Your task to perform on an android device: What's the weather going to be this weekend? Image 0: 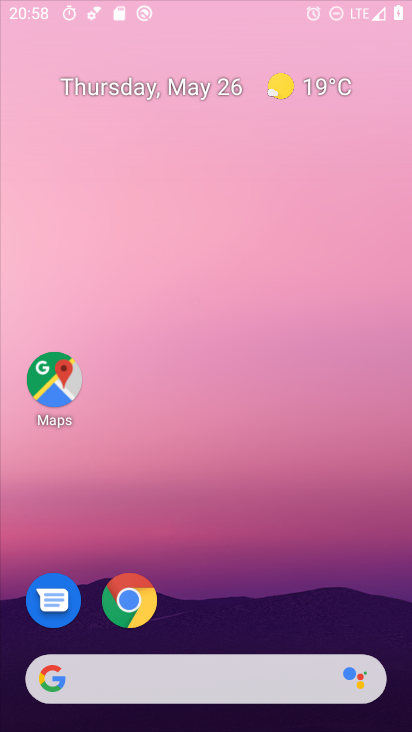
Step 0: press home button
Your task to perform on an android device: What's the weather going to be this weekend? Image 1: 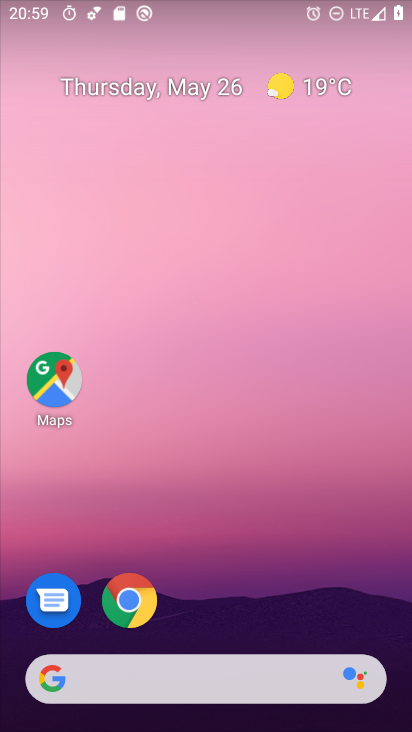
Step 1: click (47, 695)
Your task to perform on an android device: What's the weather going to be this weekend? Image 2: 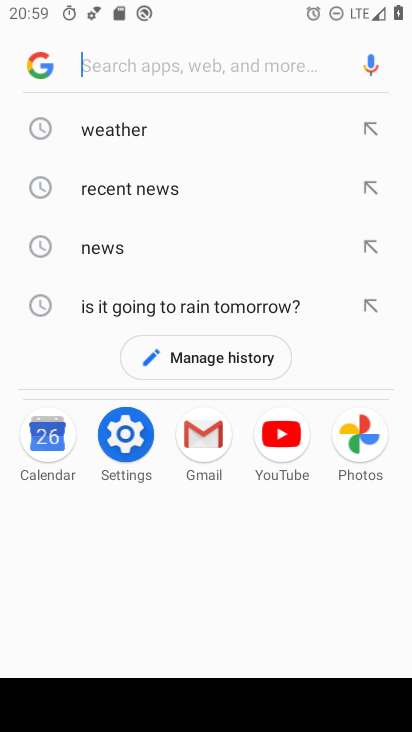
Step 2: type "weather going to be this wee"
Your task to perform on an android device: What's the weather going to be this weekend? Image 3: 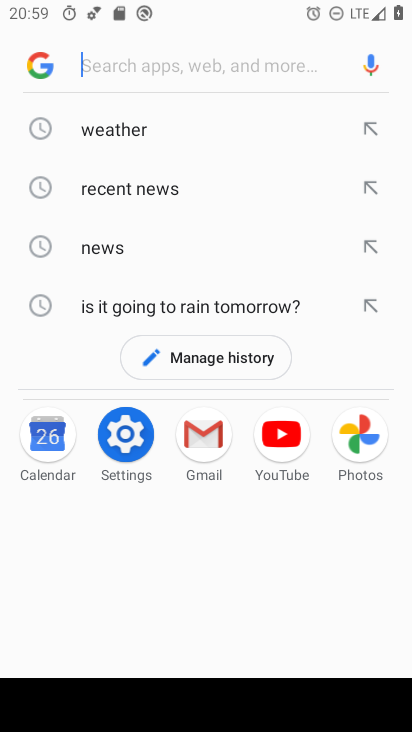
Step 3: click (179, 69)
Your task to perform on an android device: What's the weather going to be this weekend? Image 4: 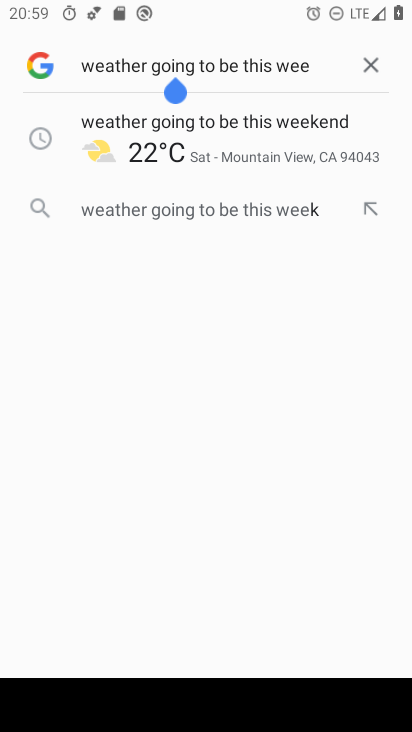
Step 4: click (244, 121)
Your task to perform on an android device: What's the weather going to be this weekend? Image 5: 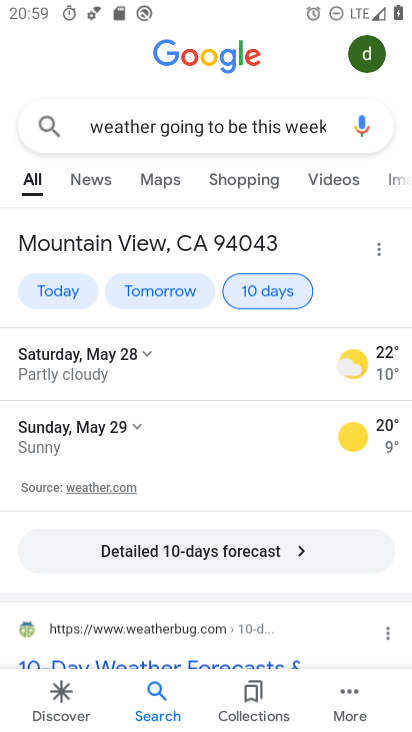
Step 5: press home button
Your task to perform on an android device: What's the weather going to be this weekend? Image 6: 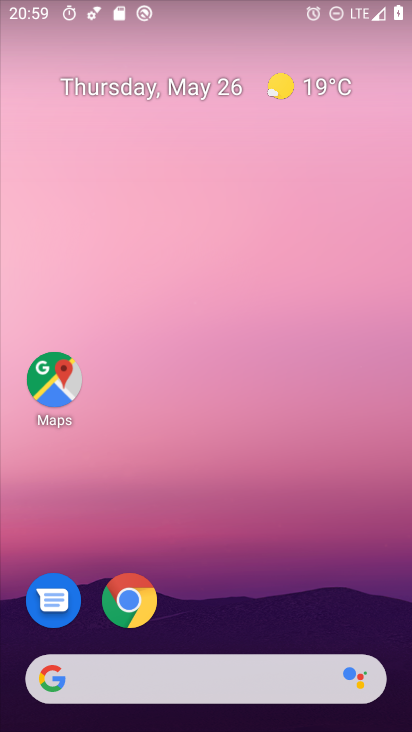
Step 6: press home button
Your task to perform on an android device: What's the weather going to be this weekend? Image 7: 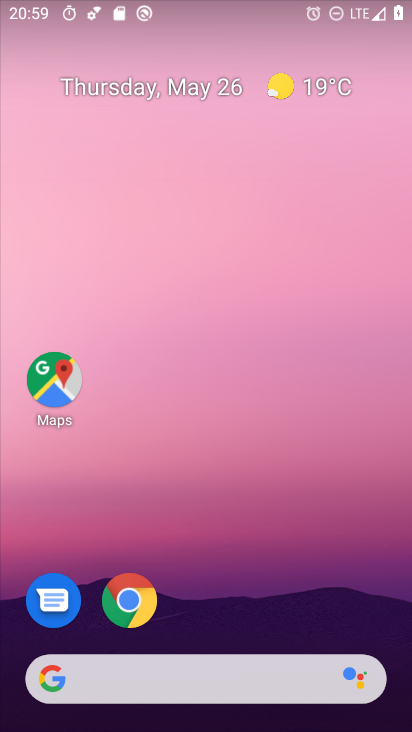
Step 7: click (57, 685)
Your task to perform on an android device: What's the weather going to be this weekend? Image 8: 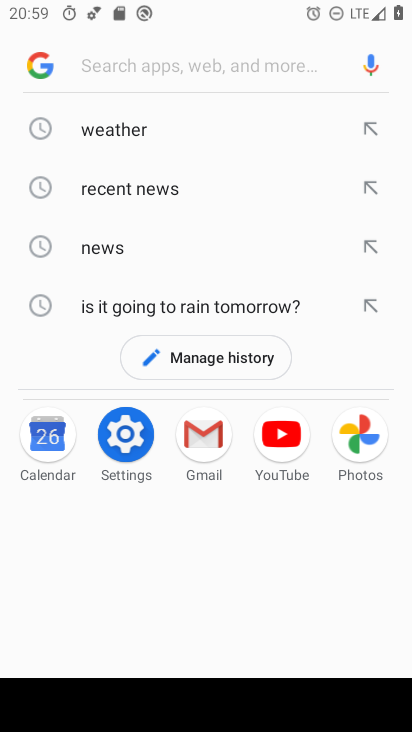
Step 8: type "weather going to be this weekend?"
Your task to perform on an android device: What's the weather going to be this weekend? Image 9: 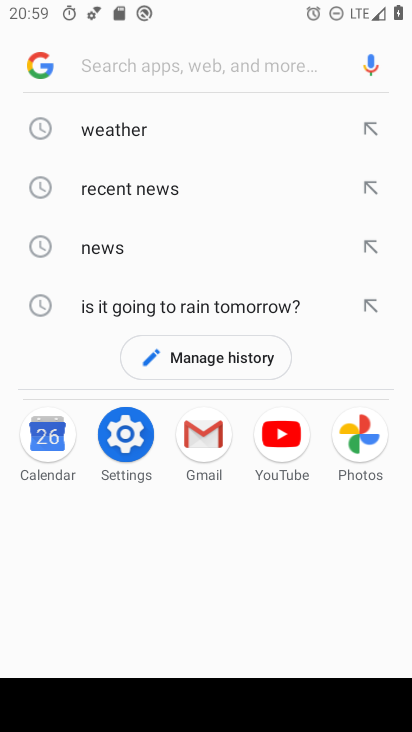
Step 9: click (192, 78)
Your task to perform on an android device: What's the weather going to be this weekend? Image 10: 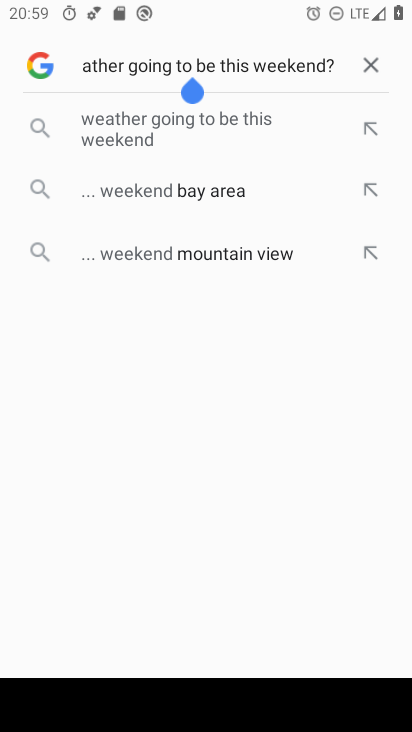
Step 10: click (191, 127)
Your task to perform on an android device: What's the weather going to be this weekend? Image 11: 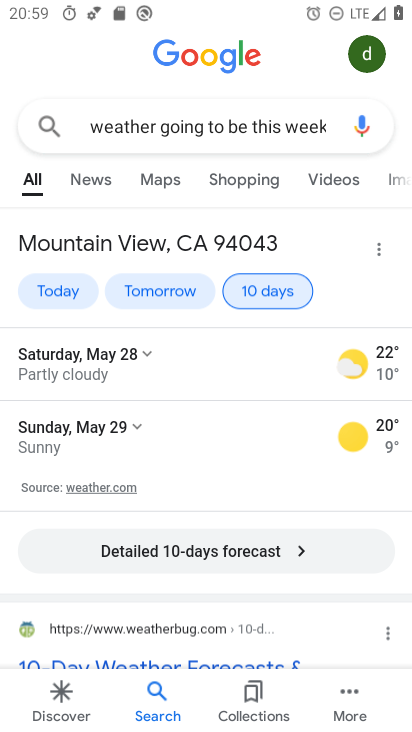
Step 11: task complete